Your task to perform on an android device: check data usage Image 0: 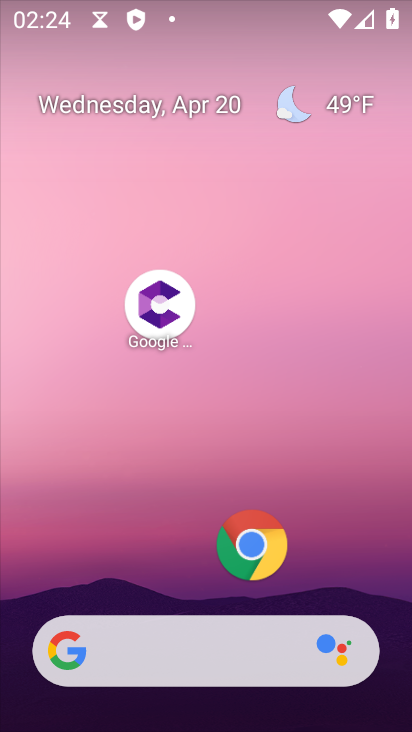
Step 0: drag from (162, 554) to (258, 26)
Your task to perform on an android device: check data usage Image 1: 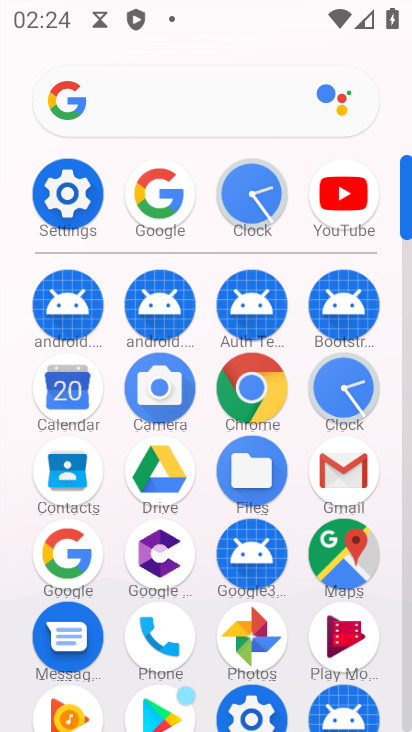
Step 1: click (66, 194)
Your task to perform on an android device: check data usage Image 2: 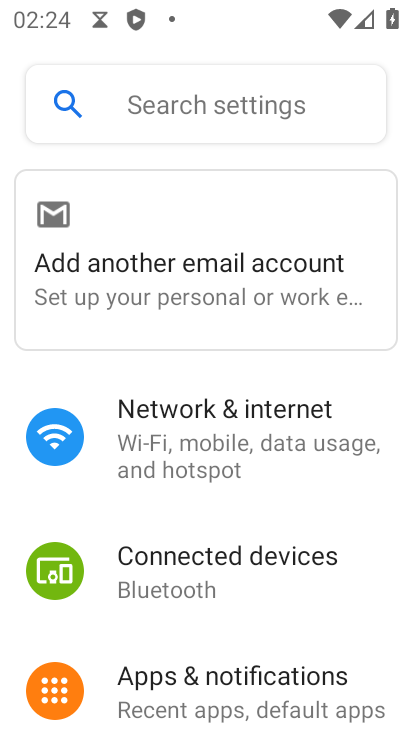
Step 2: click (221, 403)
Your task to perform on an android device: check data usage Image 3: 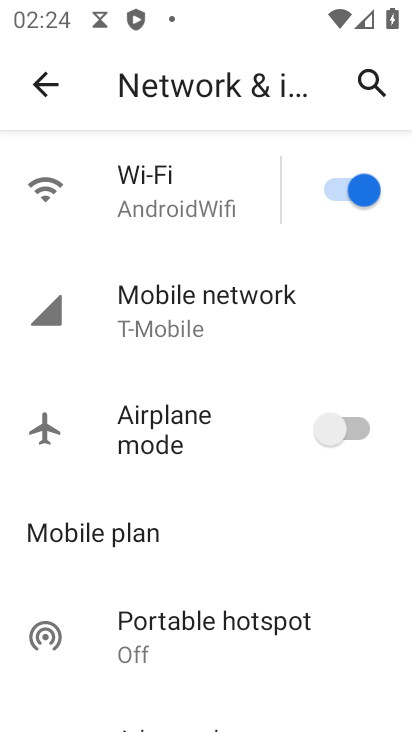
Step 3: click (262, 285)
Your task to perform on an android device: check data usage Image 4: 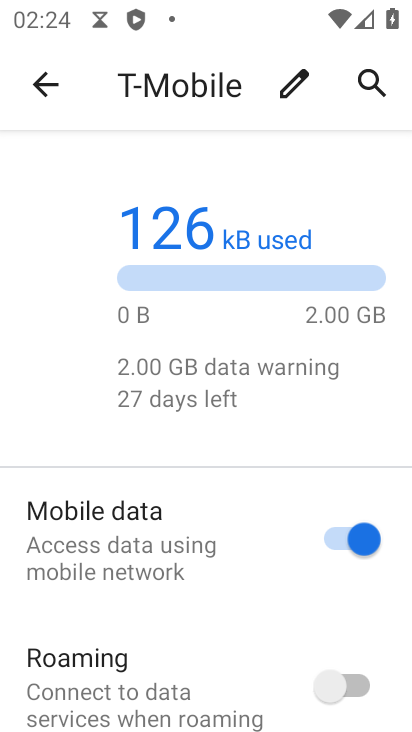
Step 4: task complete